Your task to perform on an android device: Go to Amazon Image 0: 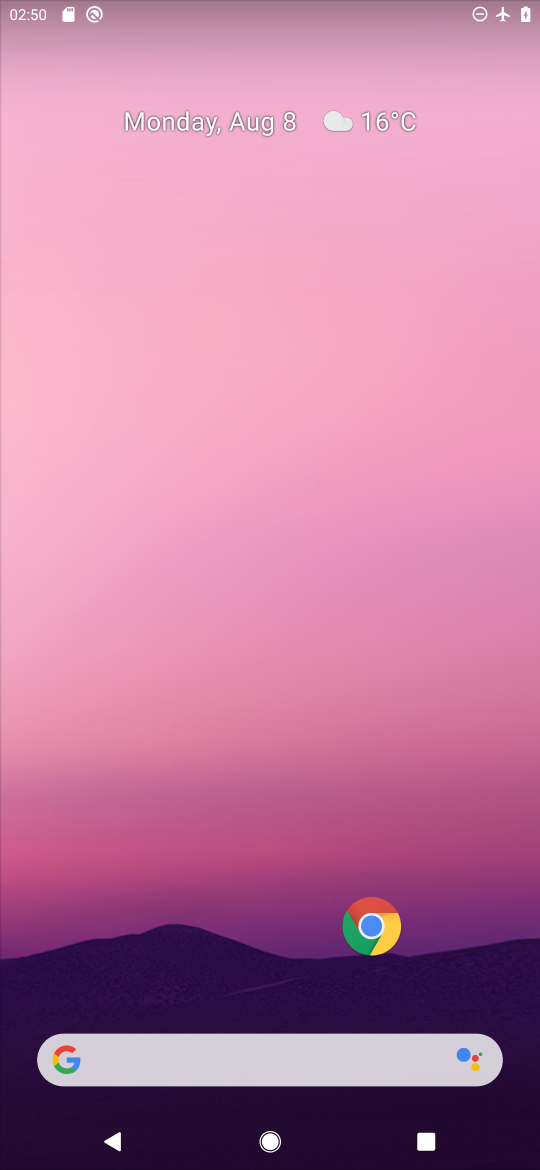
Step 0: drag from (252, 1014) to (379, 1)
Your task to perform on an android device: Go to Amazon Image 1: 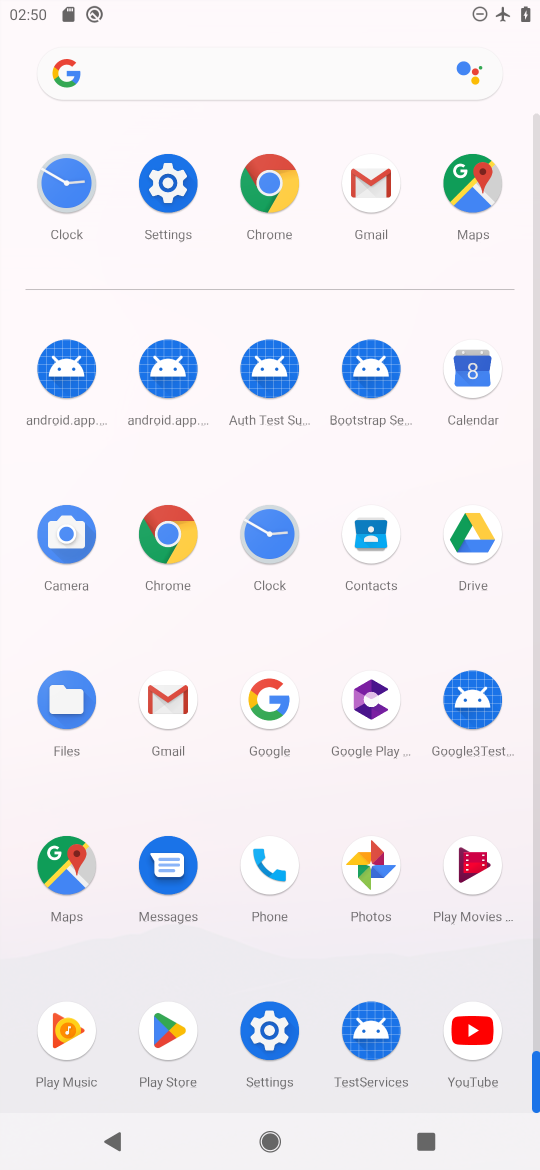
Step 1: click (269, 202)
Your task to perform on an android device: Go to Amazon Image 2: 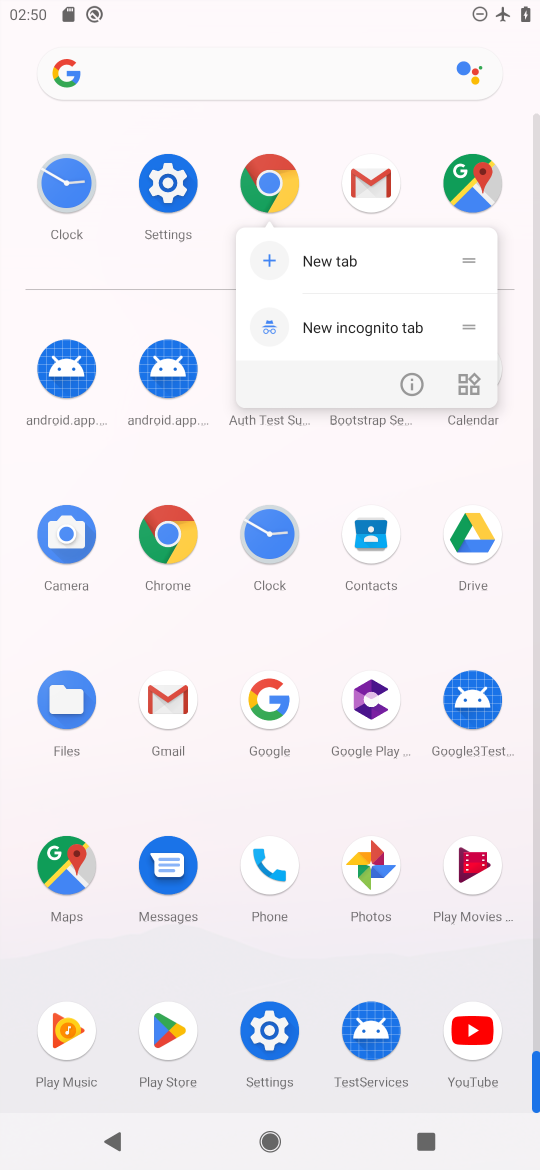
Step 2: click (269, 202)
Your task to perform on an android device: Go to Amazon Image 3: 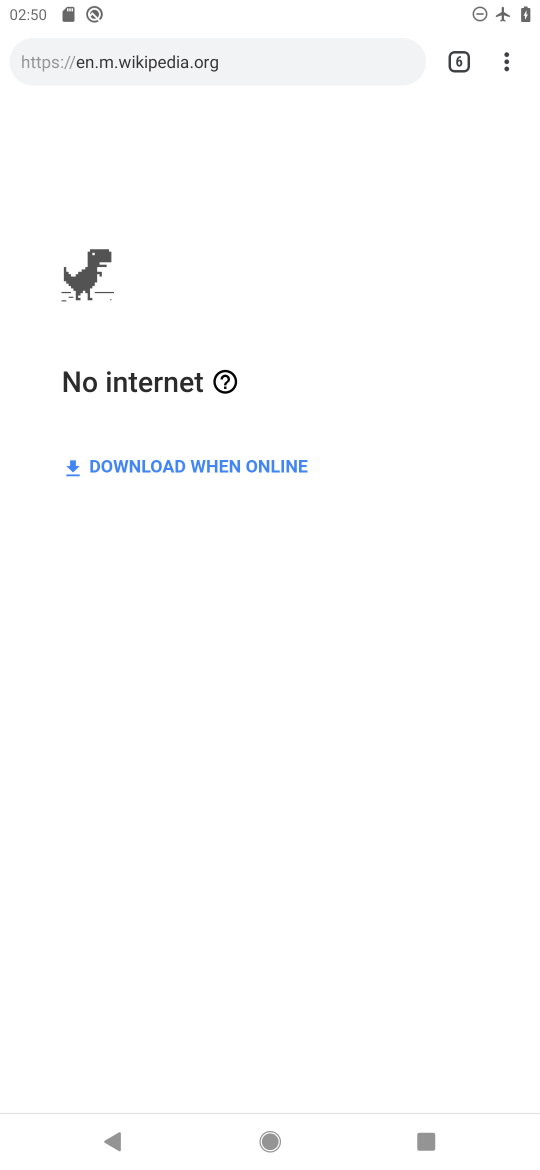
Step 3: click (520, 54)
Your task to perform on an android device: Go to Amazon Image 4: 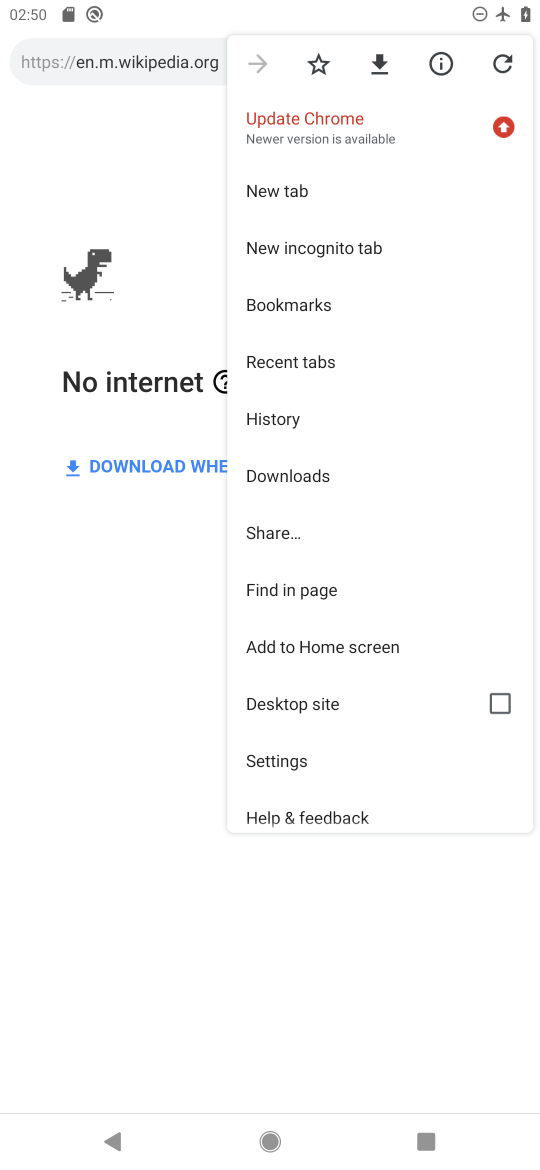
Step 4: click (299, 177)
Your task to perform on an android device: Go to Amazon Image 5: 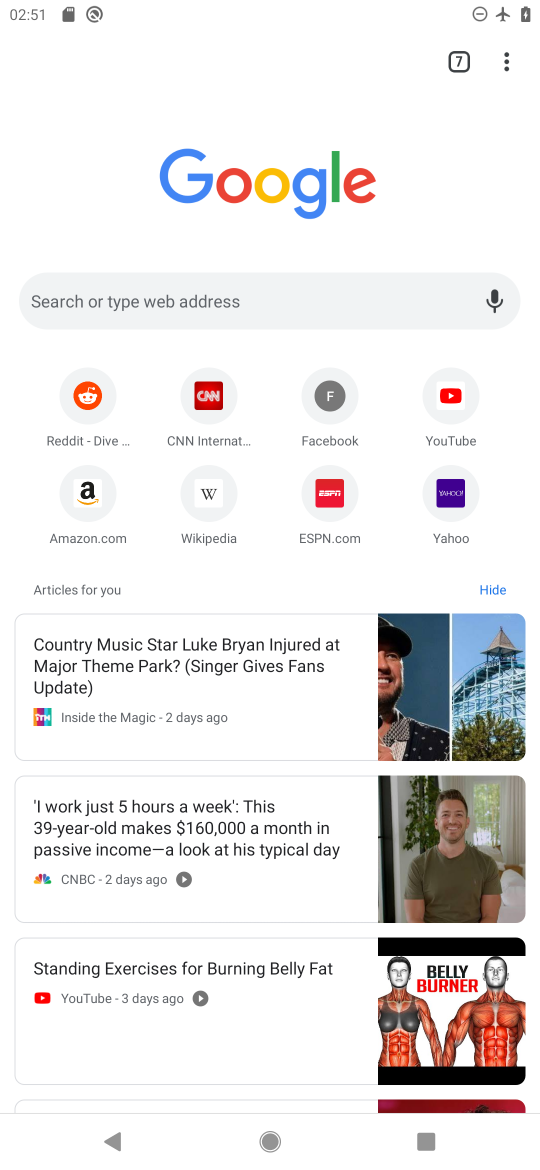
Step 5: click (83, 476)
Your task to perform on an android device: Go to Amazon Image 6: 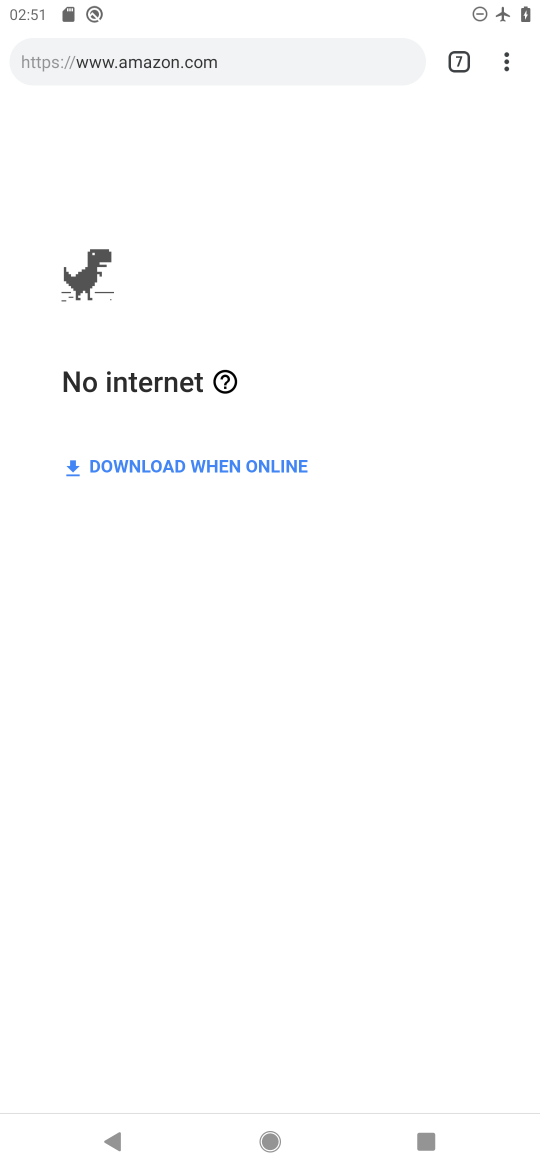
Step 6: task complete